Your task to perform on an android device: Open calendar and show me the third week of next month Image 0: 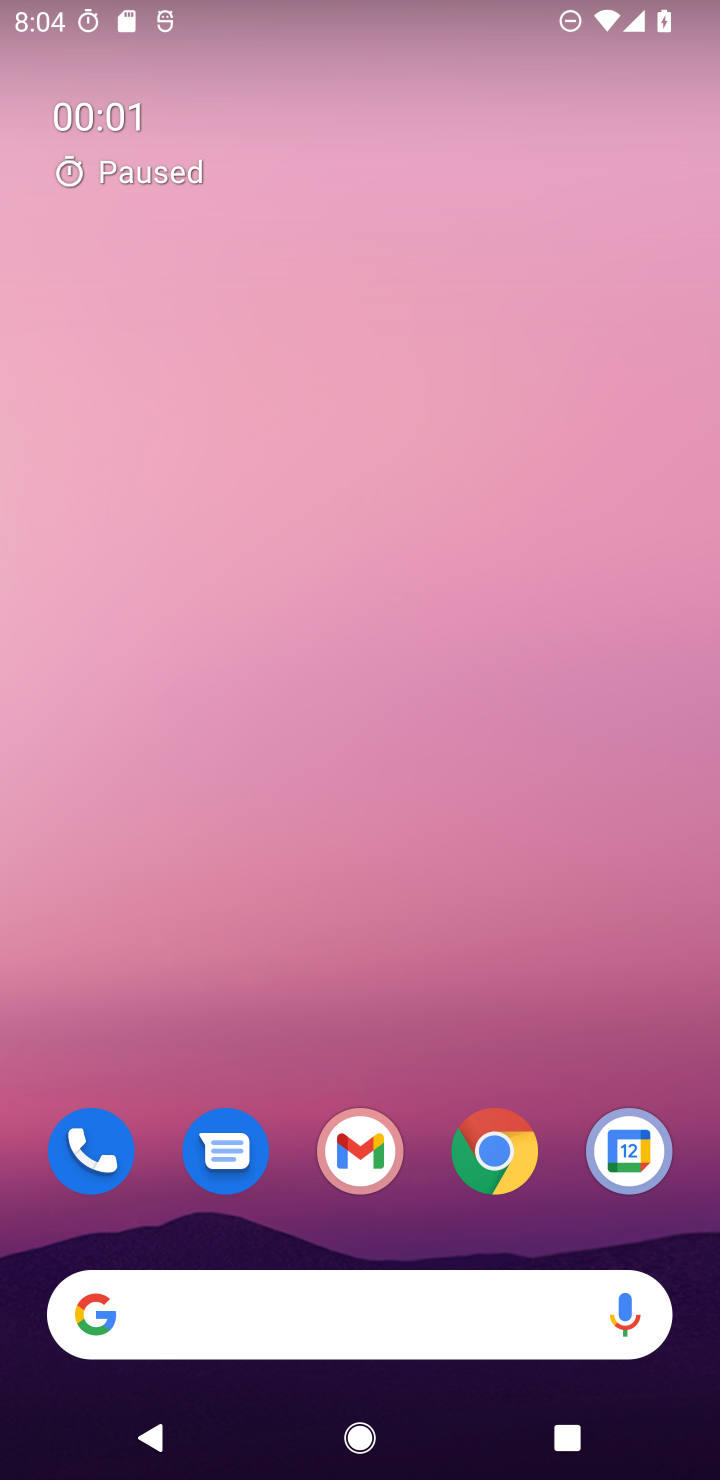
Step 0: drag from (482, 648) to (537, 35)
Your task to perform on an android device: Open calendar and show me the third week of next month Image 1: 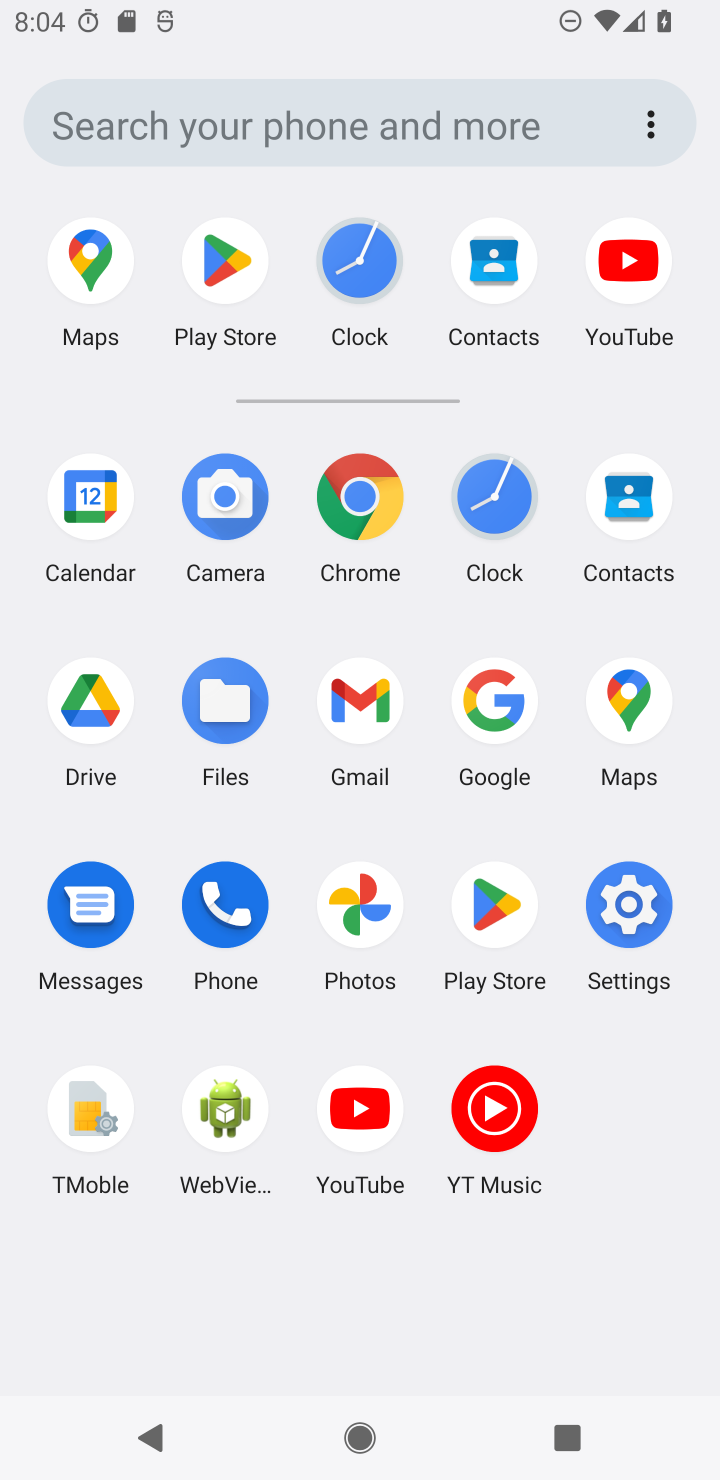
Step 1: click (94, 503)
Your task to perform on an android device: Open calendar and show me the third week of next month Image 2: 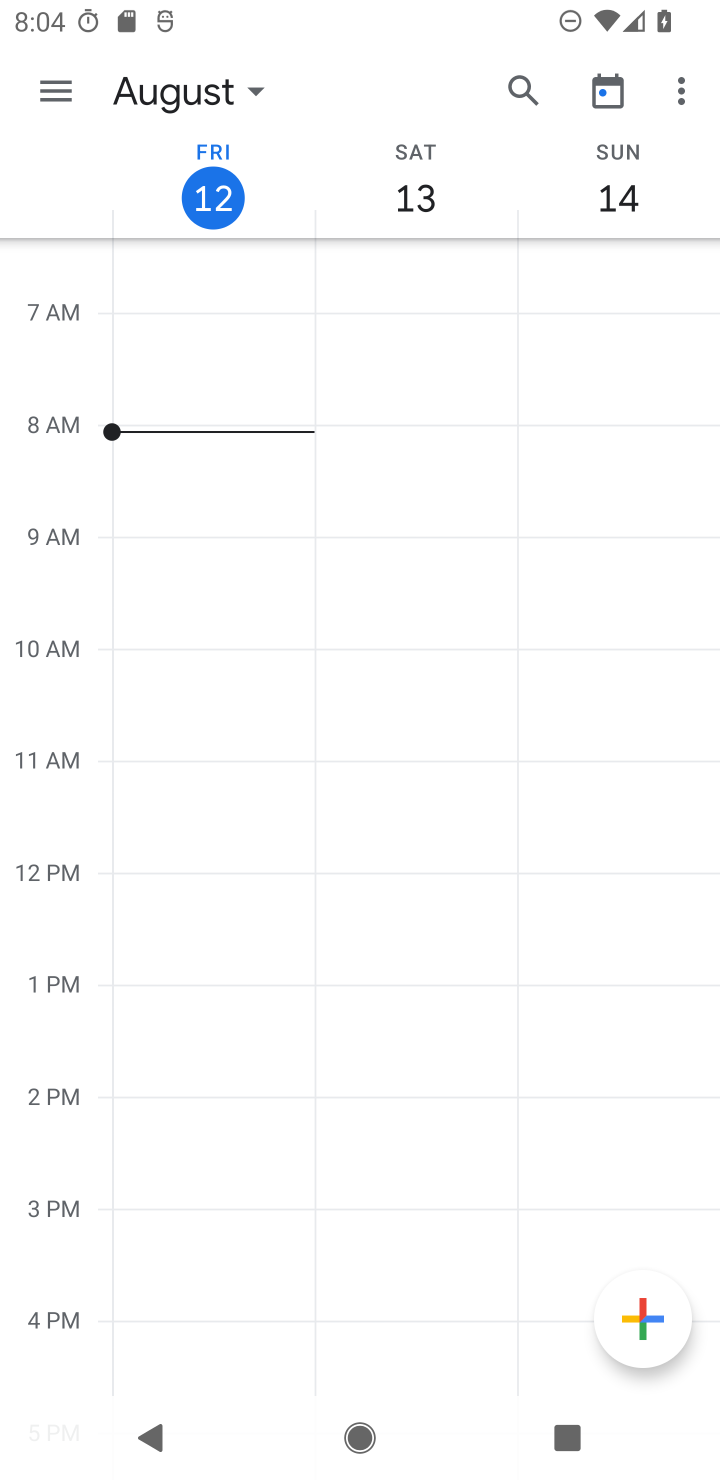
Step 2: click (202, 87)
Your task to perform on an android device: Open calendar and show me the third week of next month Image 3: 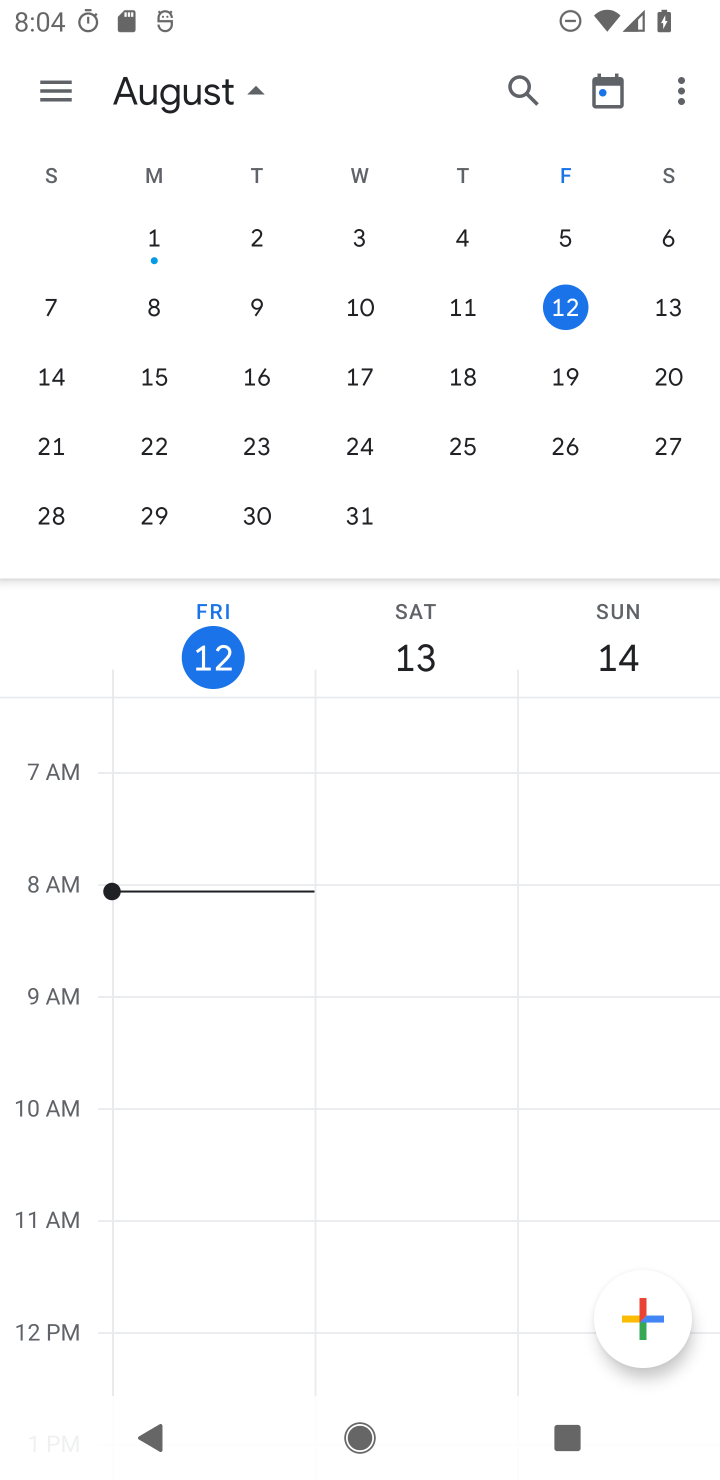
Step 3: drag from (625, 394) to (15, 394)
Your task to perform on an android device: Open calendar and show me the third week of next month Image 4: 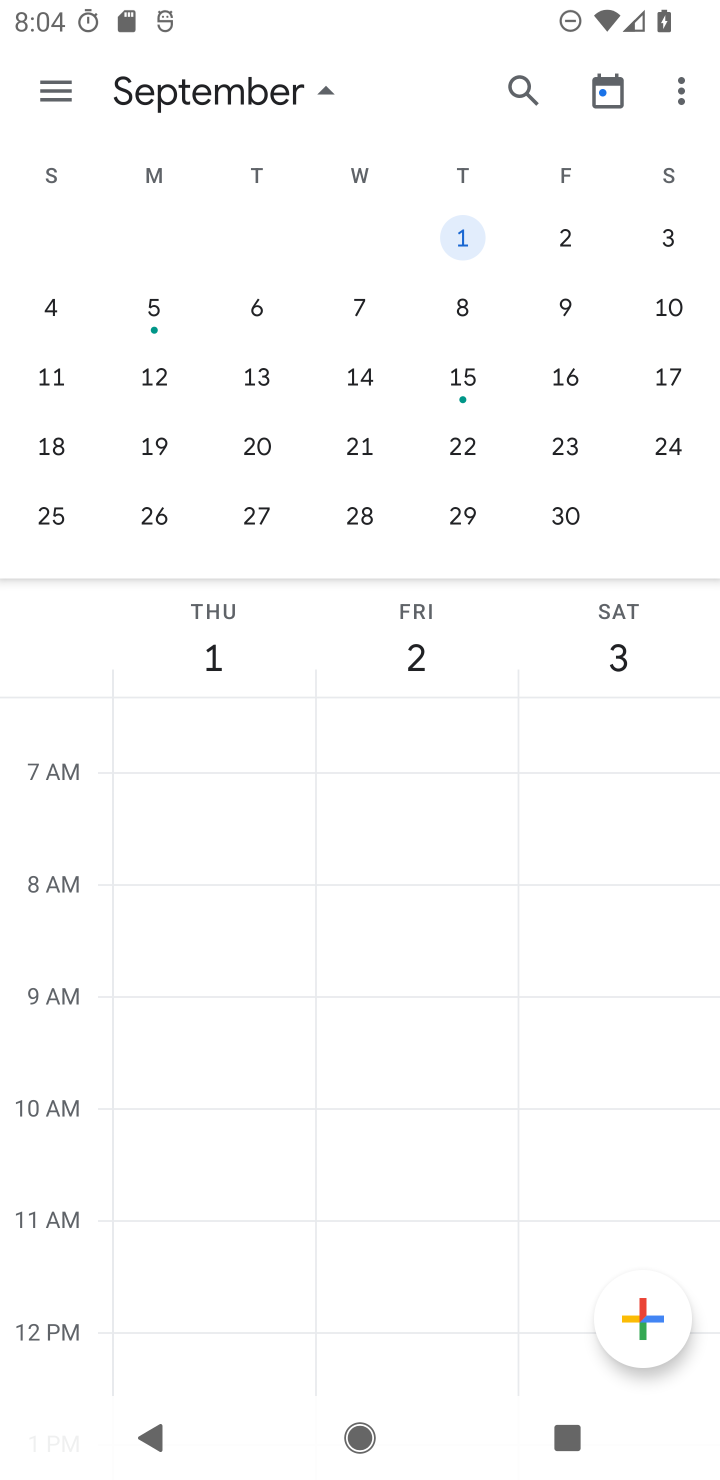
Step 4: click (261, 433)
Your task to perform on an android device: Open calendar and show me the third week of next month Image 5: 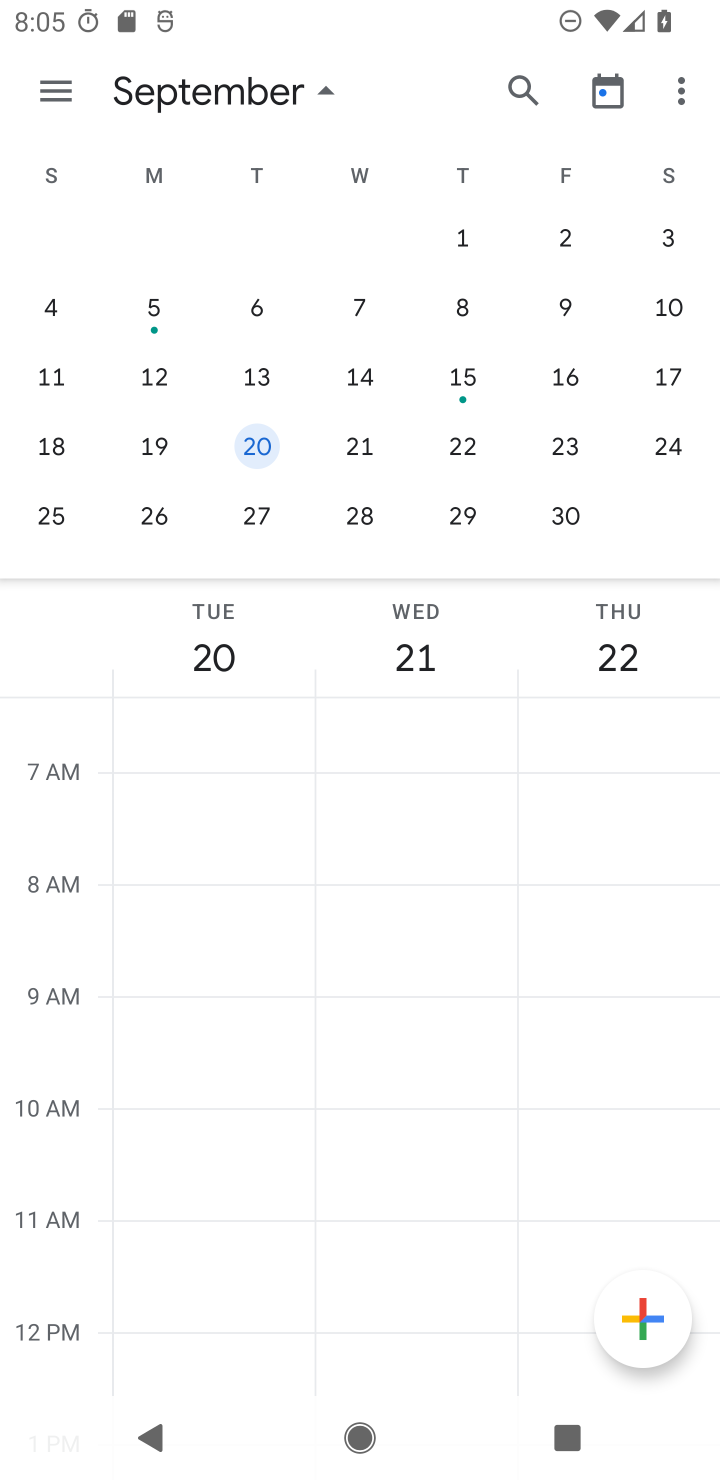
Step 5: click (51, 97)
Your task to perform on an android device: Open calendar and show me the third week of next month Image 6: 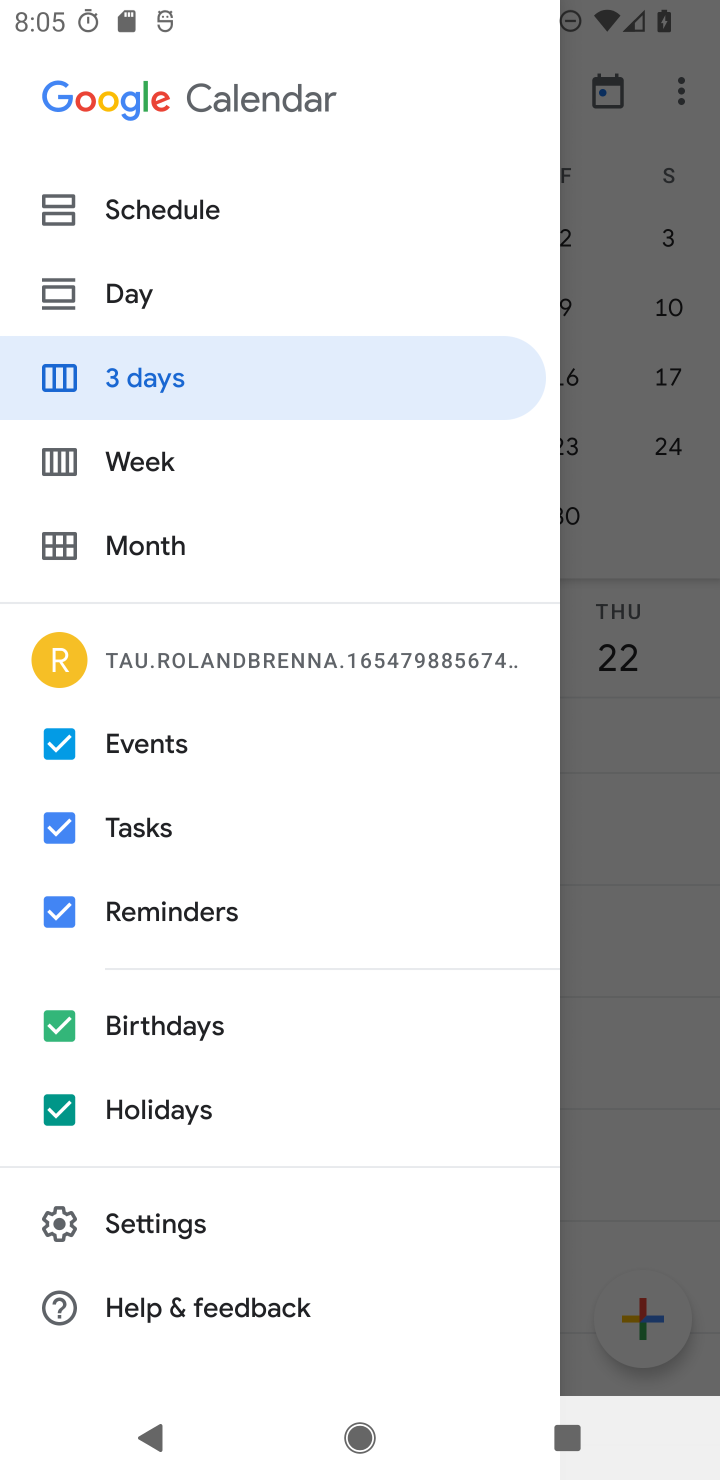
Step 6: click (166, 444)
Your task to perform on an android device: Open calendar and show me the third week of next month Image 7: 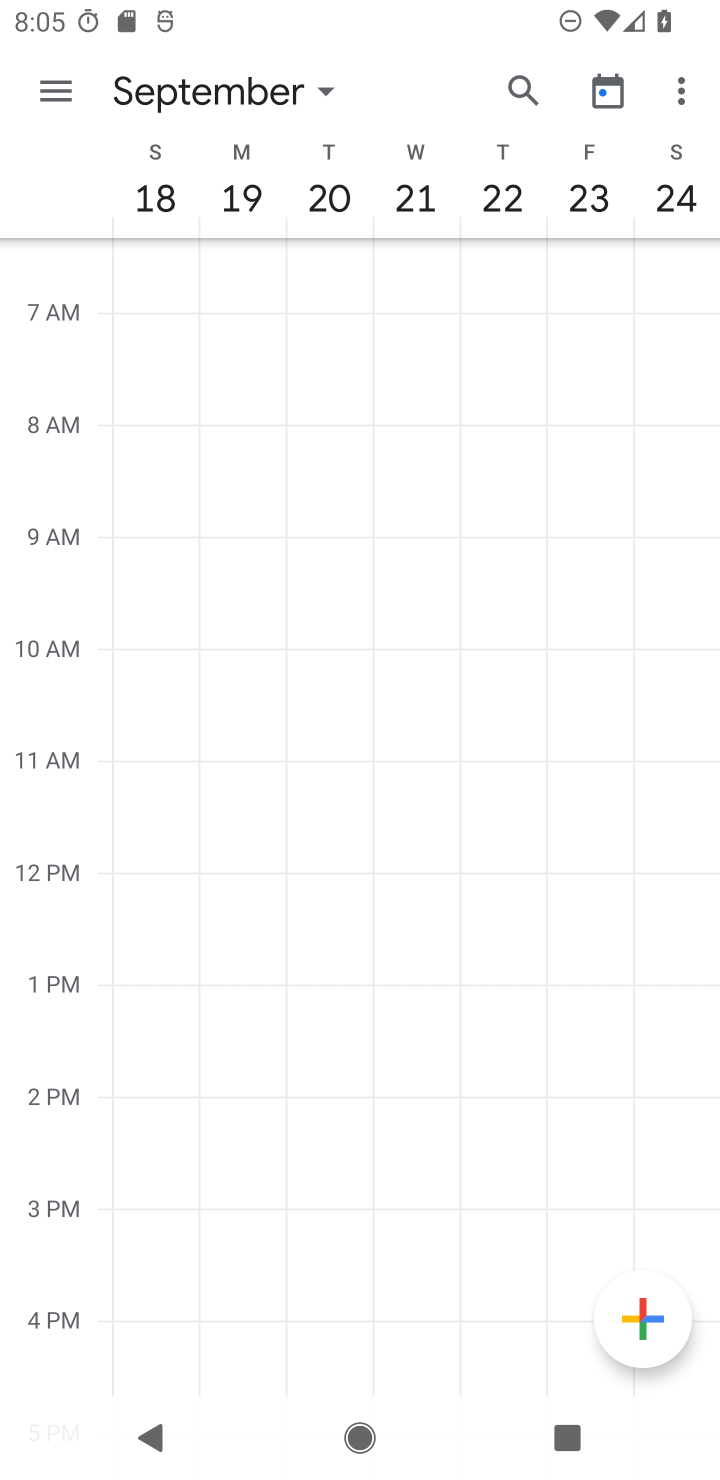
Step 7: task complete